Your task to perform on an android device: change keyboard looks Image 0: 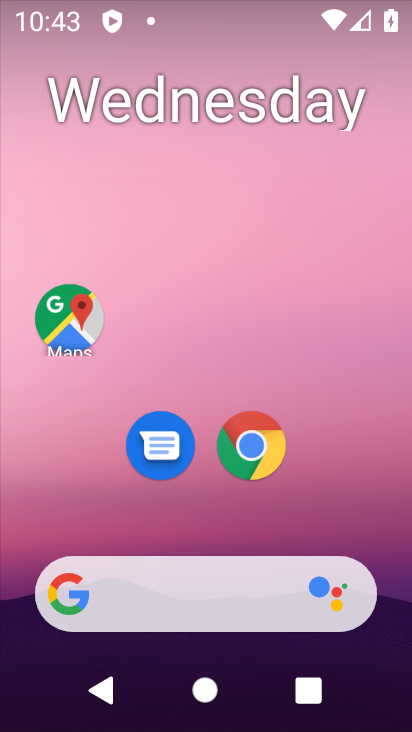
Step 0: drag from (341, 454) to (399, 63)
Your task to perform on an android device: change keyboard looks Image 1: 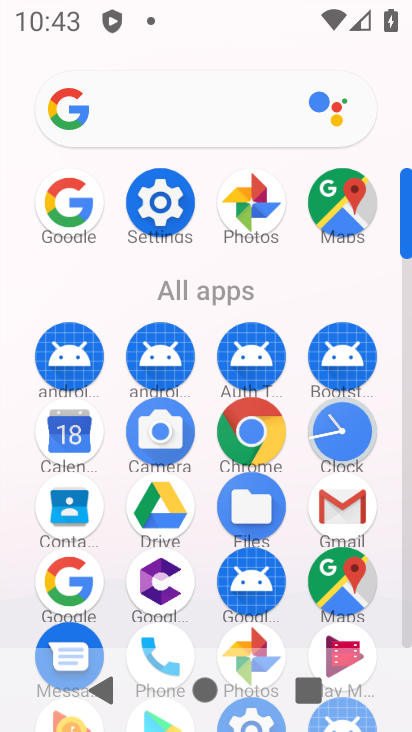
Step 1: click (180, 193)
Your task to perform on an android device: change keyboard looks Image 2: 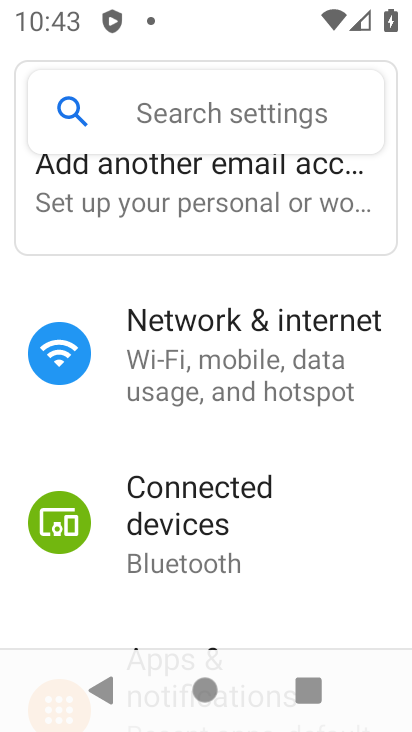
Step 2: drag from (281, 551) to (293, 226)
Your task to perform on an android device: change keyboard looks Image 3: 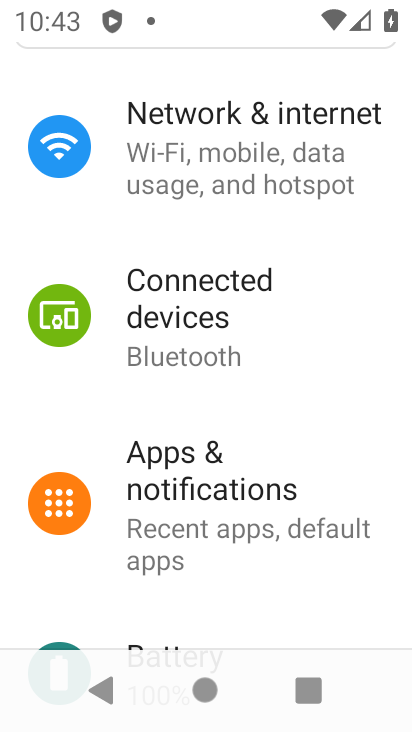
Step 3: drag from (241, 557) to (274, 194)
Your task to perform on an android device: change keyboard looks Image 4: 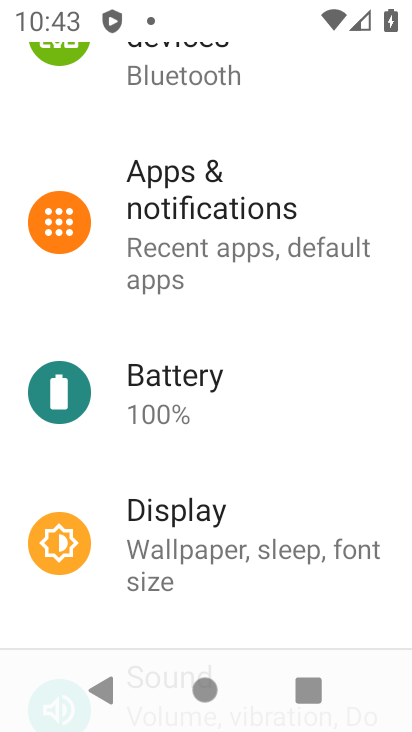
Step 4: drag from (252, 578) to (274, 164)
Your task to perform on an android device: change keyboard looks Image 5: 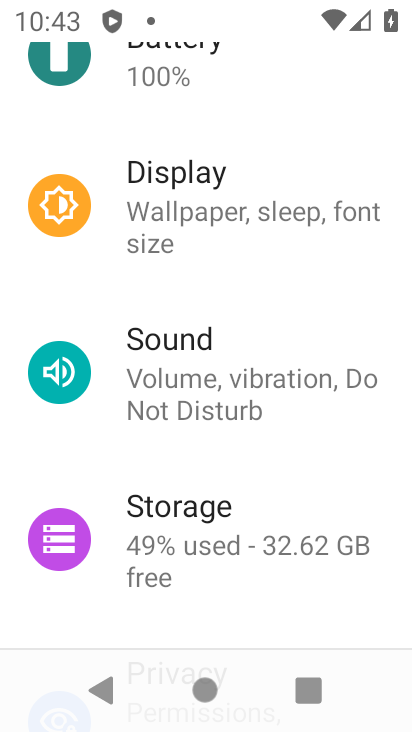
Step 5: drag from (255, 525) to (285, 189)
Your task to perform on an android device: change keyboard looks Image 6: 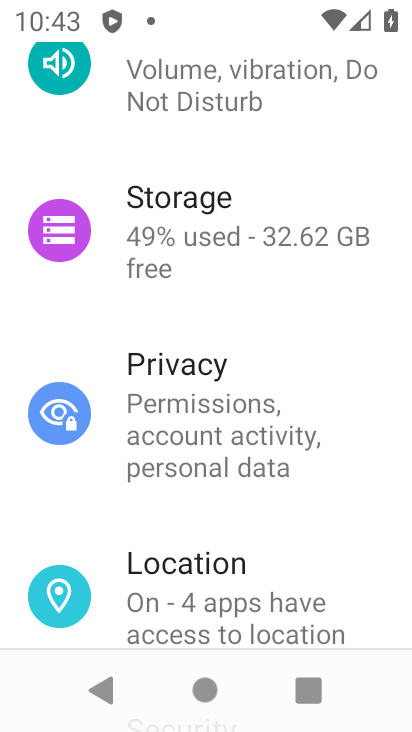
Step 6: drag from (301, 498) to (293, 180)
Your task to perform on an android device: change keyboard looks Image 7: 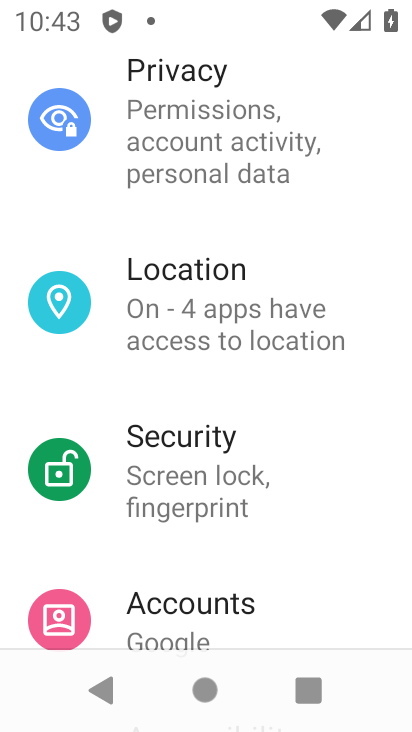
Step 7: drag from (272, 580) to (299, 184)
Your task to perform on an android device: change keyboard looks Image 8: 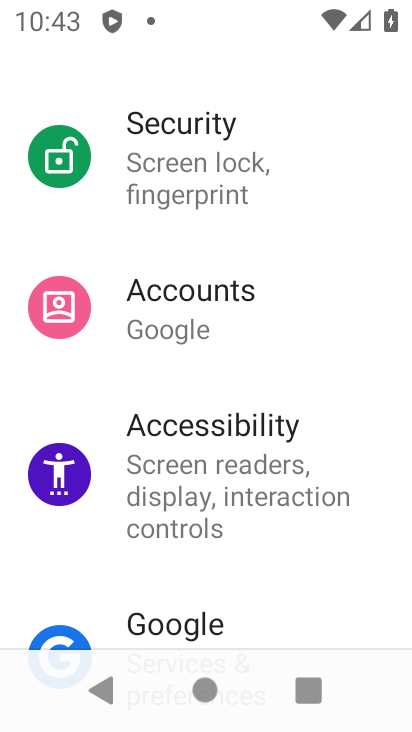
Step 8: drag from (293, 604) to (289, 142)
Your task to perform on an android device: change keyboard looks Image 9: 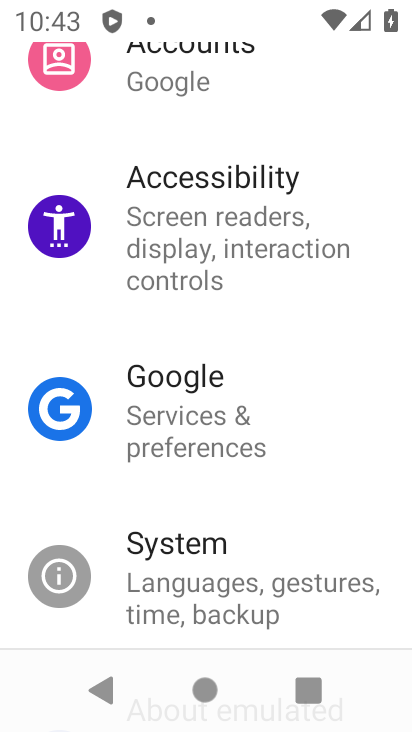
Step 9: click (245, 597)
Your task to perform on an android device: change keyboard looks Image 10: 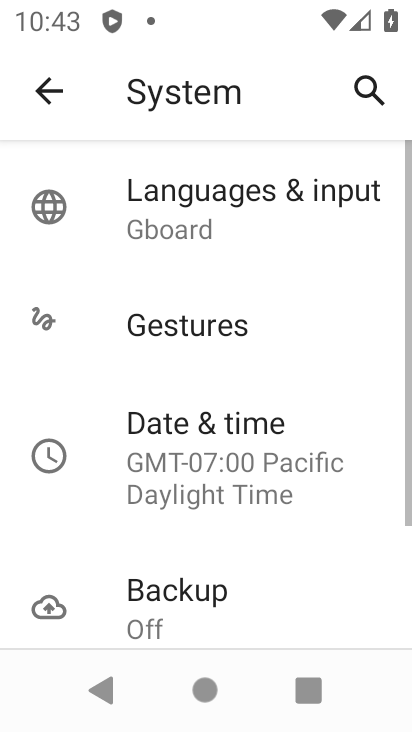
Step 10: click (225, 222)
Your task to perform on an android device: change keyboard looks Image 11: 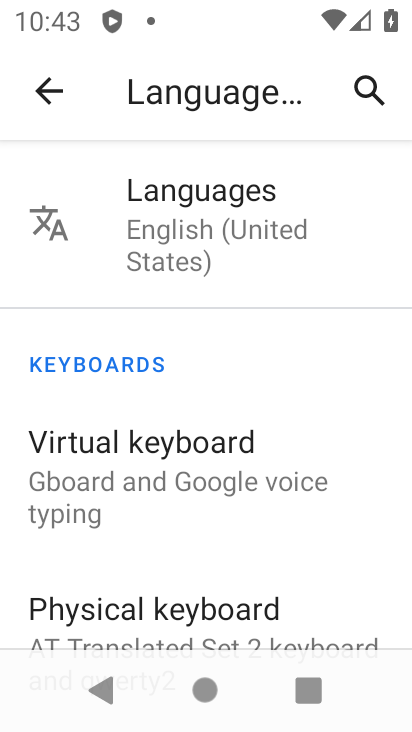
Step 11: click (209, 481)
Your task to perform on an android device: change keyboard looks Image 12: 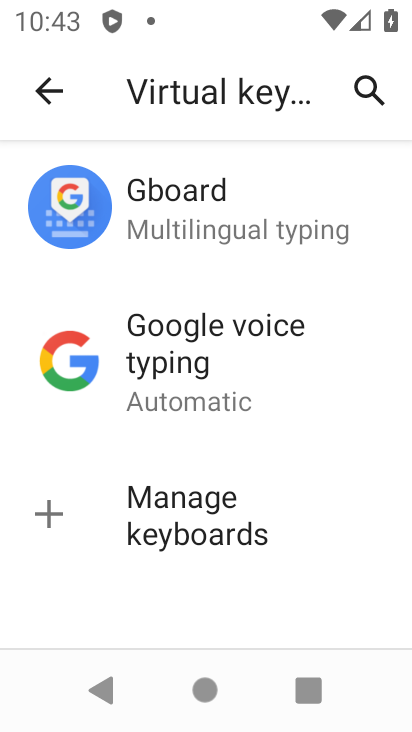
Step 12: click (214, 227)
Your task to perform on an android device: change keyboard looks Image 13: 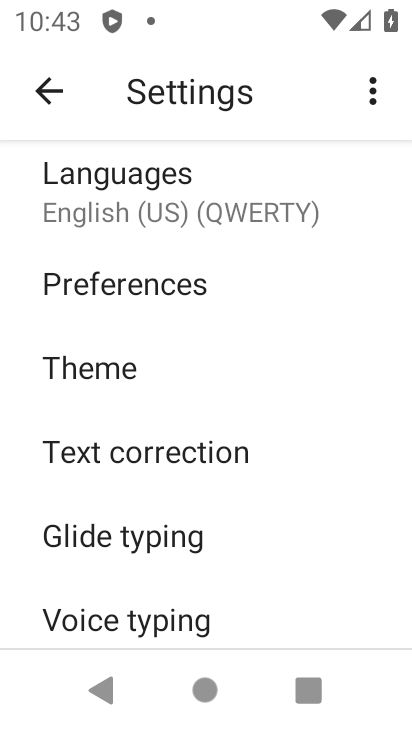
Step 13: click (130, 347)
Your task to perform on an android device: change keyboard looks Image 14: 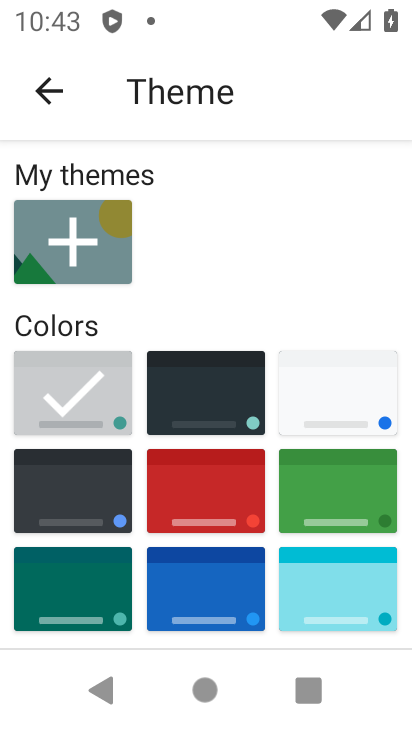
Step 14: click (215, 372)
Your task to perform on an android device: change keyboard looks Image 15: 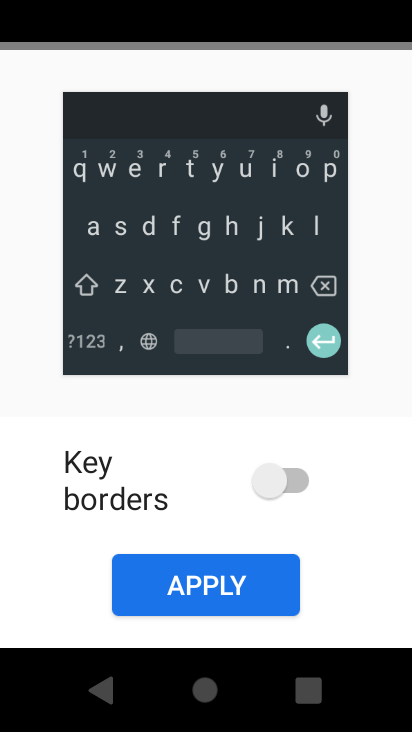
Step 15: click (247, 589)
Your task to perform on an android device: change keyboard looks Image 16: 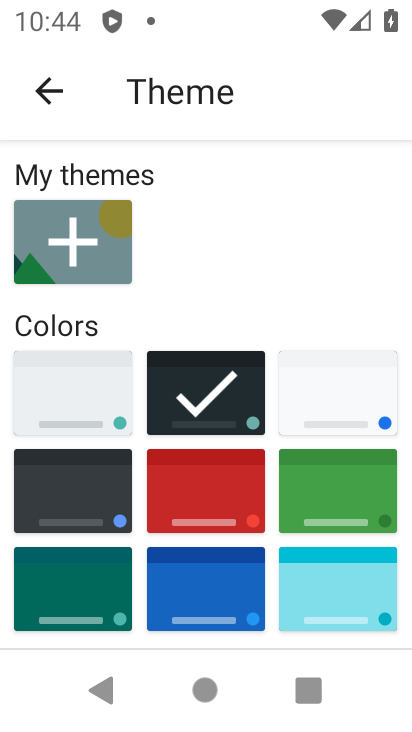
Step 16: task complete